Your task to perform on an android device: open app "Spotify: Music and Podcasts" (install if not already installed) Image 0: 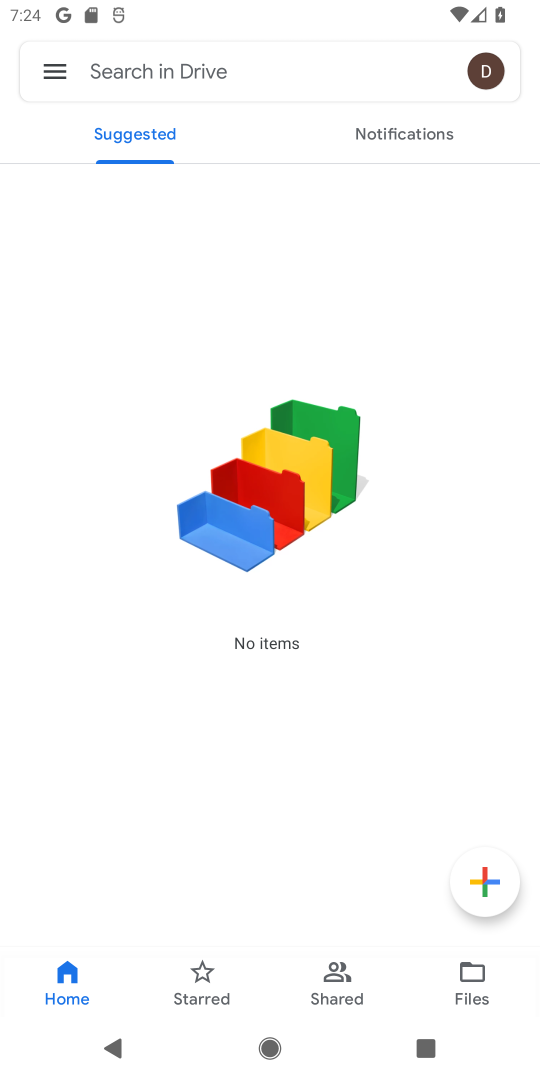
Step 0: press back button
Your task to perform on an android device: open app "Spotify: Music and Podcasts" (install if not already installed) Image 1: 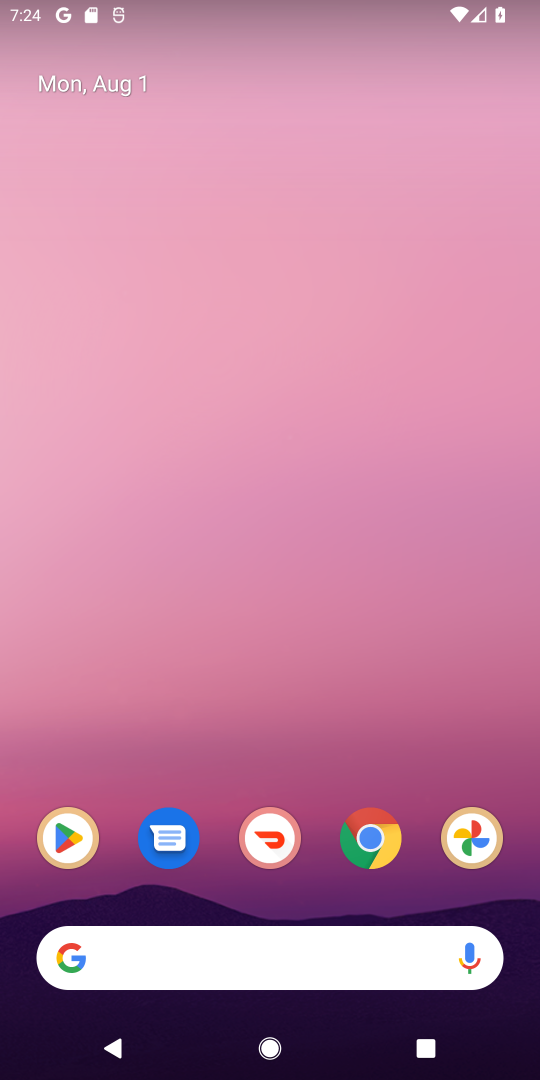
Step 1: drag from (294, 927) to (210, 294)
Your task to perform on an android device: open app "Spotify: Music and Podcasts" (install if not already installed) Image 2: 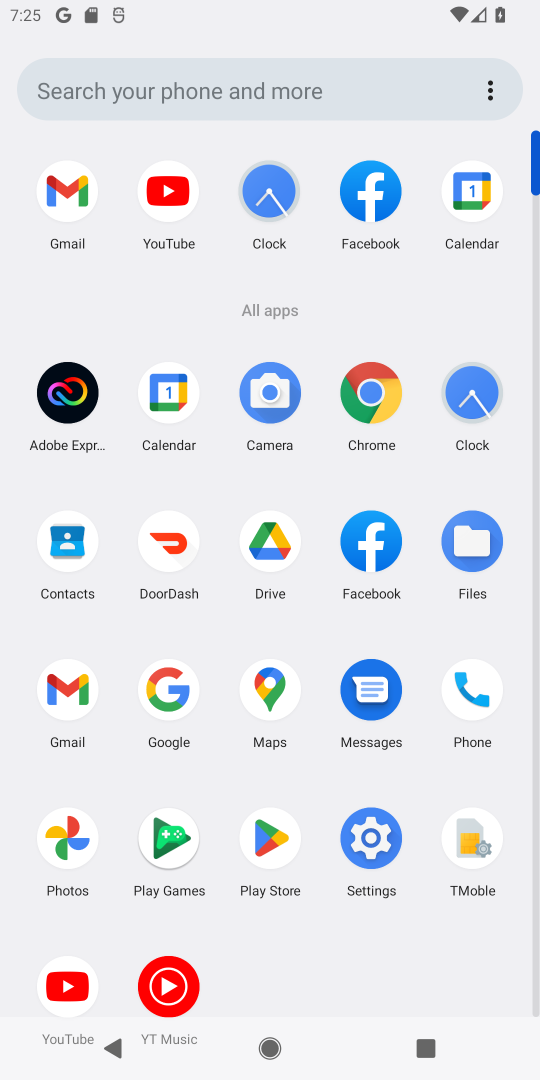
Step 2: click (259, 875)
Your task to perform on an android device: open app "Spotify: Music and Podcasts" (install if not already installed) Image 3: 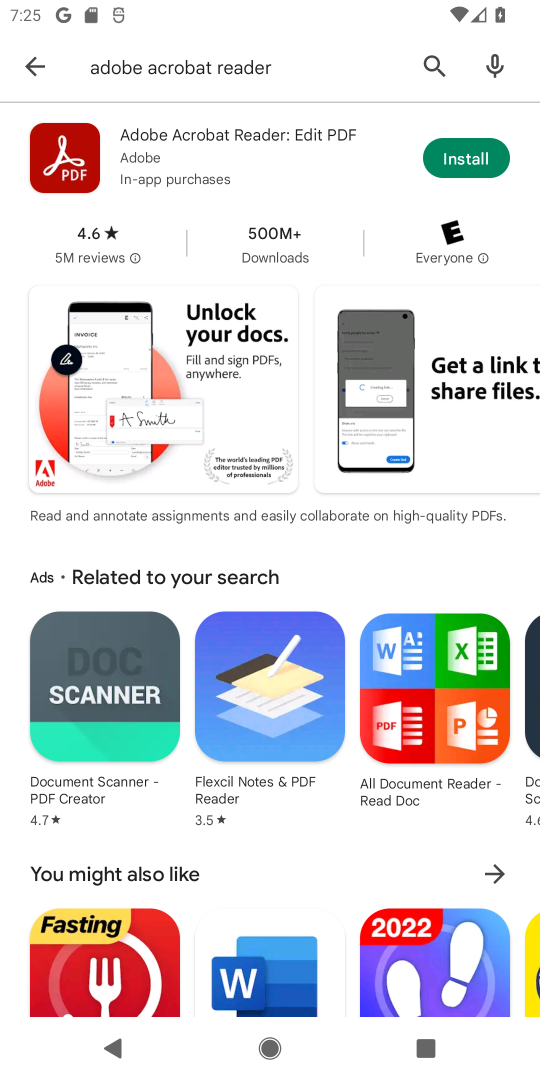
Step 3: click (32, 100)
Your task to perform on an android device: open app "Spotify: Music and Podcasts" (install if not already installed) Image 4: 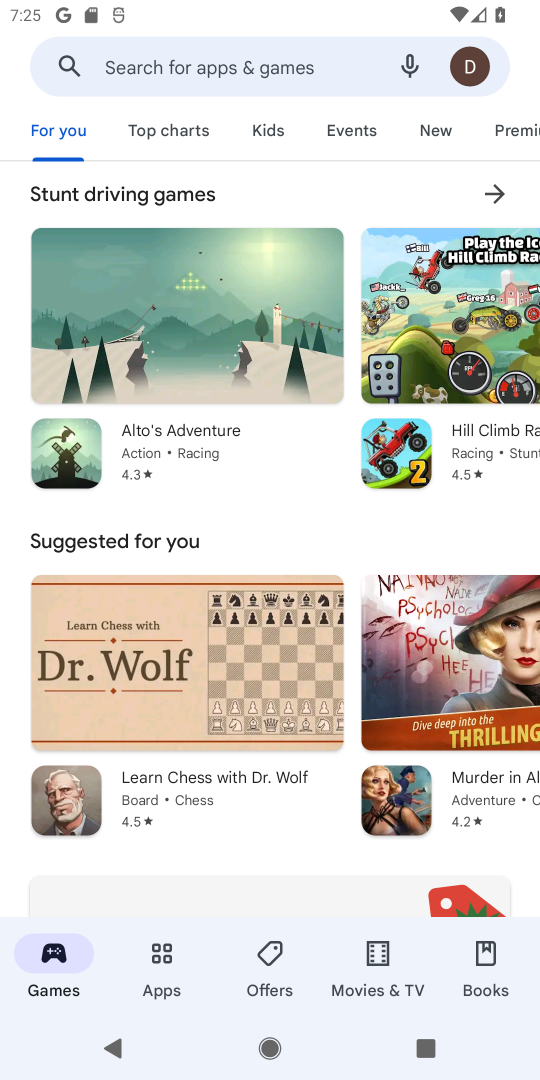
Step 4: click (178, 66)
Your task to perform on an android device: open app "Spotify: Music and Podcasts" (install if not already installed) Image 5: 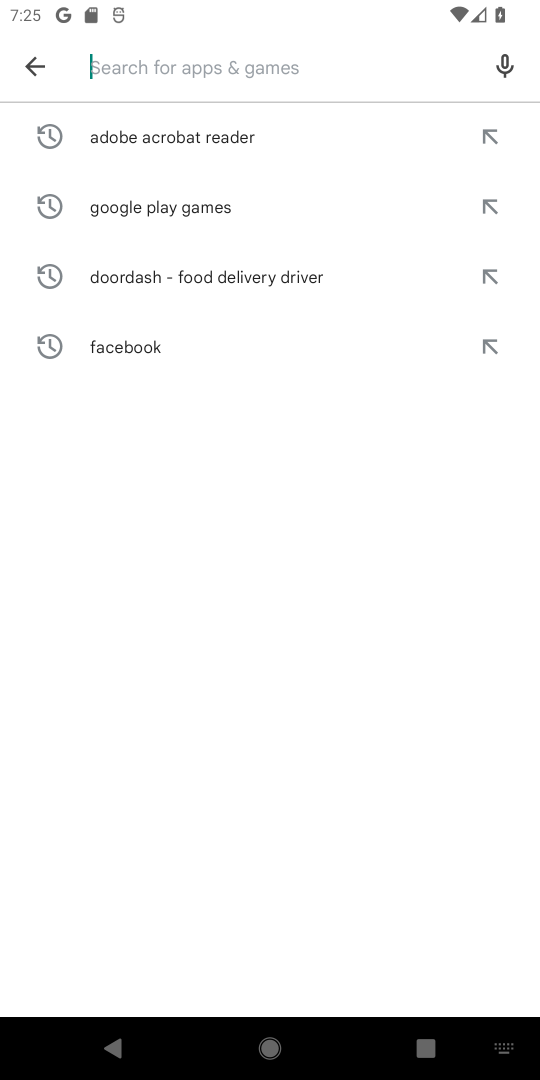
Step 5: type "Spotify: Music and Podcasts"
Your task to perform on an android device: open app "Spotify: Music and Podcasts" (install if not already installed) Image 6: 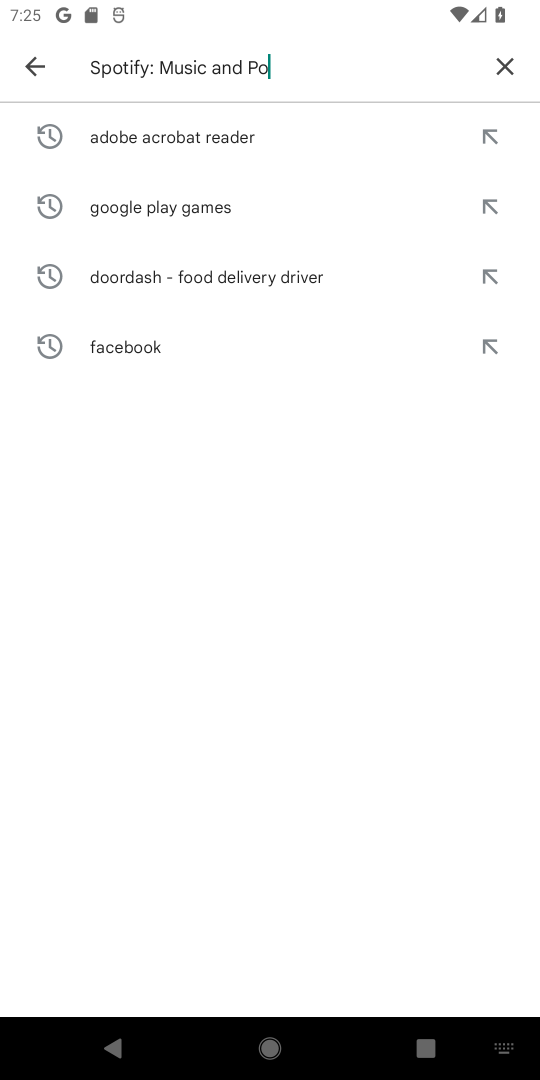
Step 6: type ""
Your task to perform on an android device: open app "Spotify: Music and Podcasts" (install if not already installed) Image 7: 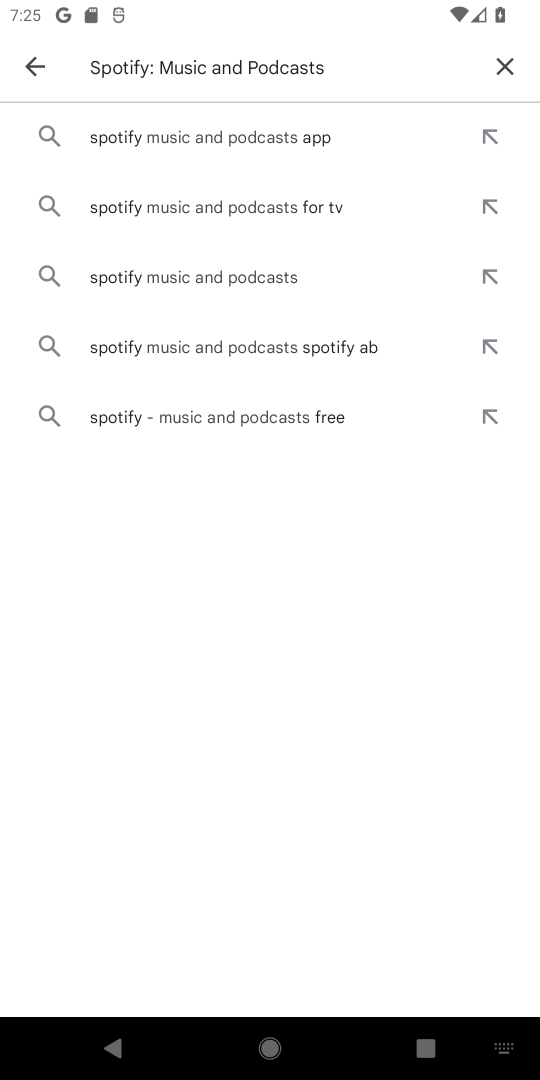
Step 7: click (184, 154)
Your task to perform on an android device: open app "Spotify: Music and Podcasts" (install if not already installed) Image 8: 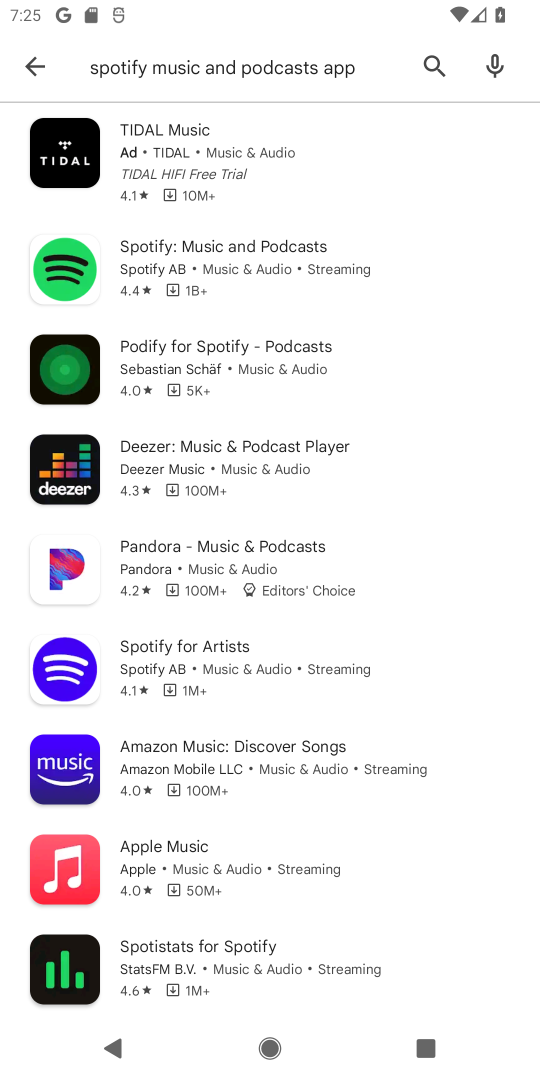
Step 8: click (203, 241)
Your task to perform on an android device: open app "Spotify: Music and Podcasts" (install if not already installed) Image 9: 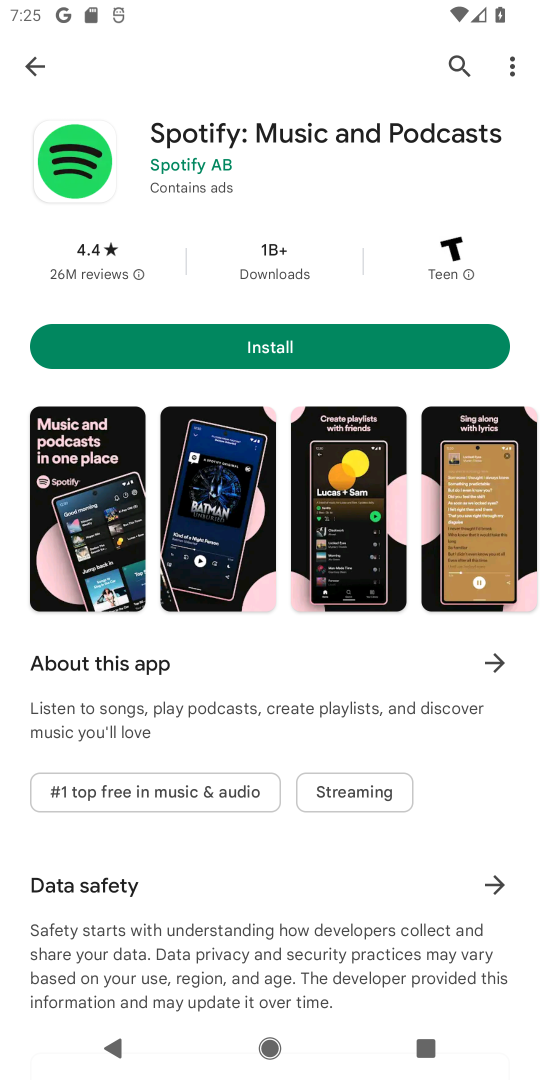
Step 9: click (231, 344)
Your task to perform on an android device: open app "Spotify: Music and Podcasts" (install if not already installed) Image 10: 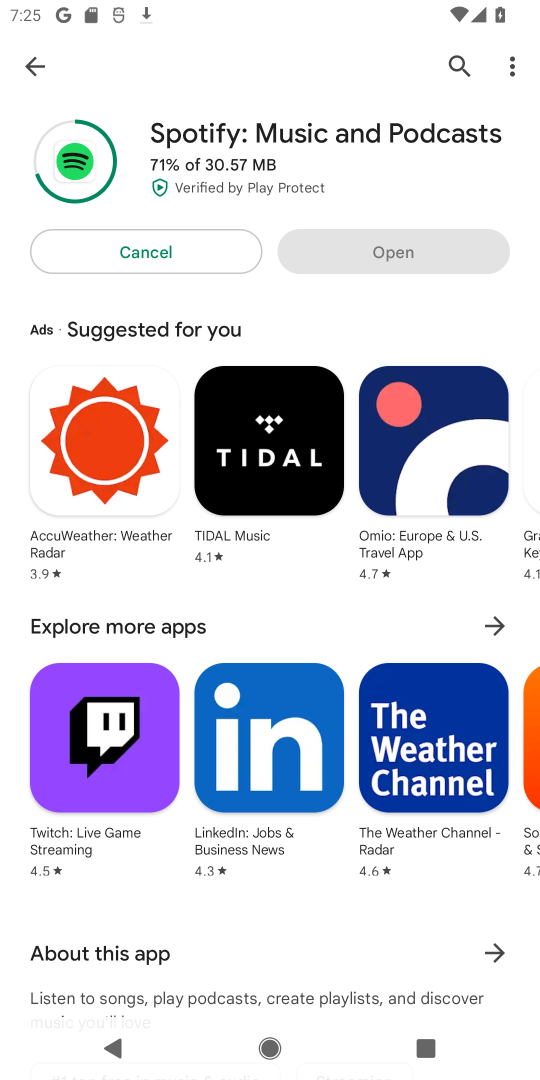
Step 10: task complete